Your task to perform on an android device: delete the emails in spam in the gmail app Image 0: 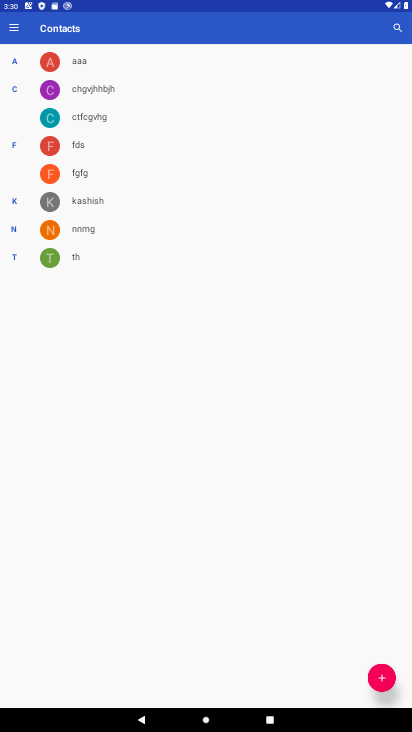
Step 0: drag from (229, 720) to (203, 209)
Your task to perform on an android device: delete the emails in spam in the gmail app Image 1: 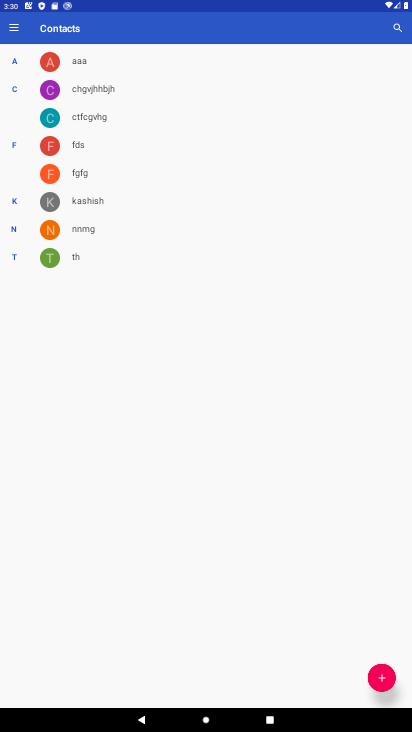
Step 1: press home button
Your task to perform on an android device: delete the emails in spam in the gmail app Image 2: 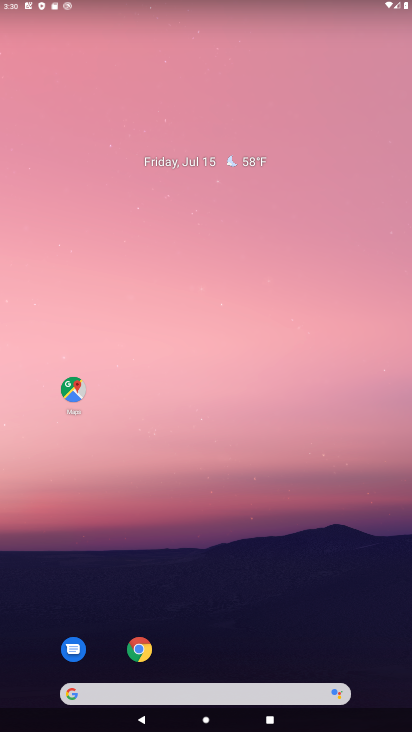
Step 2: drag from (232, 725) to (268, 7)
Your task to perform on an android device: delete the emails in spam in the gmail app Image 3: 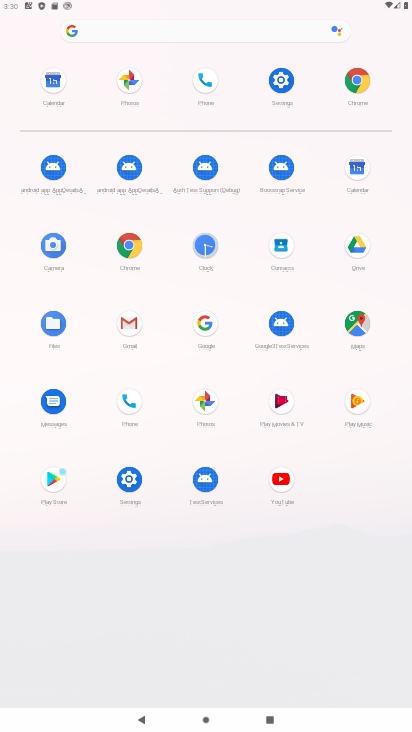
Step 3: click (139, 319)
Your task to perform on an android device: delete the emails in spam in the gmail app Image 4: 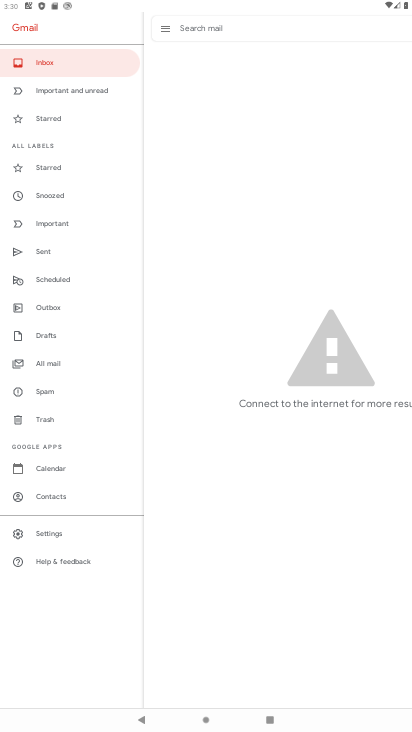
Step 4: click (53, 64)
Your task to perform on an android device: delete the emails in spam in the gmail app Image 5: 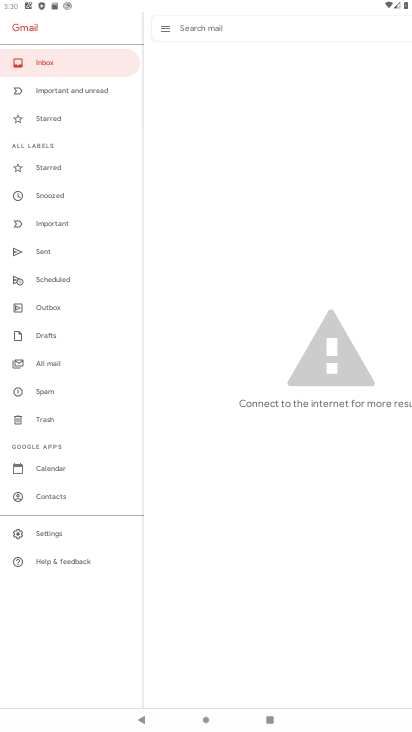
Step 5: click (55, 392)
Your task to perform on an android device: delete the emails in spam in the gmail app Image 6: 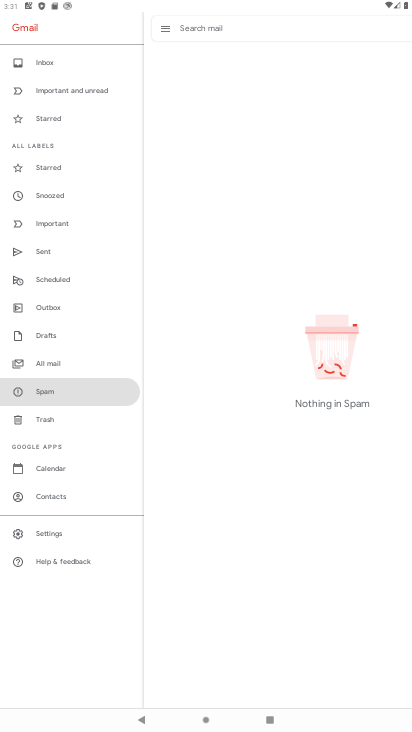
Step 6: task complete